Your task to perform on an android device: toggle improve location accuracy Image 0: 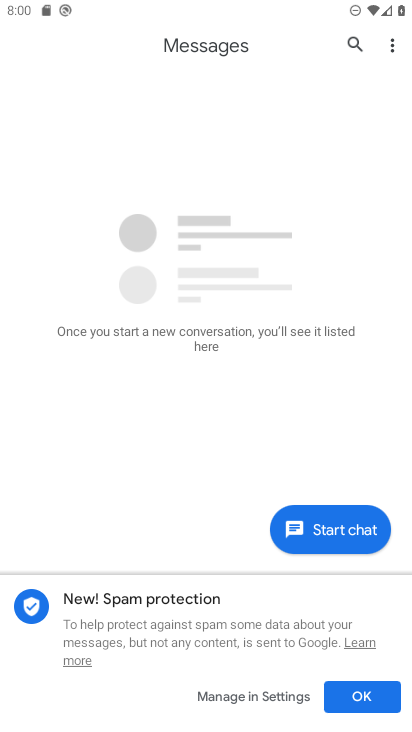
Step 0: press home button
Your task to perform on an android device: toggle improve location accuracy Image 1: 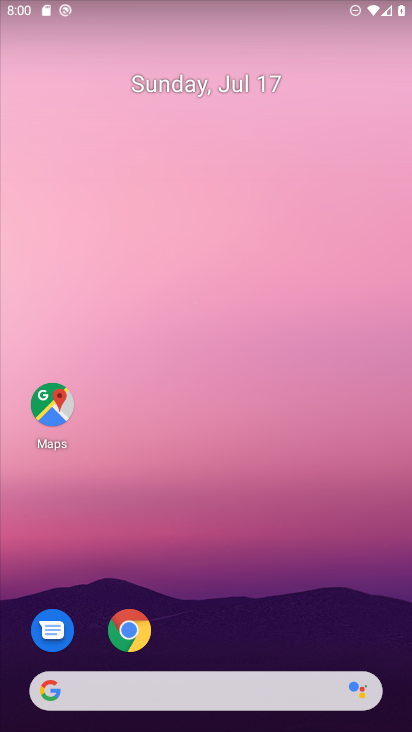
Step 1: drag from (266, 647) to (266, 252)
Your task to perform on an android device: toggle improve location accuracy Image 2: 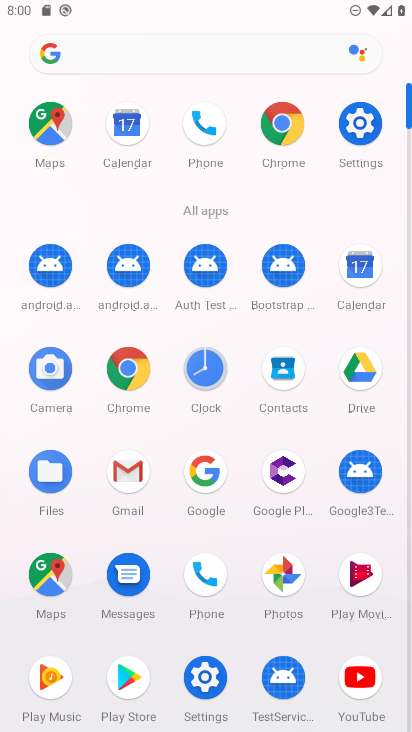
Step 2: click (350, 119)
Your task to perform on an android device: toggle improve location accuracy Image 3: 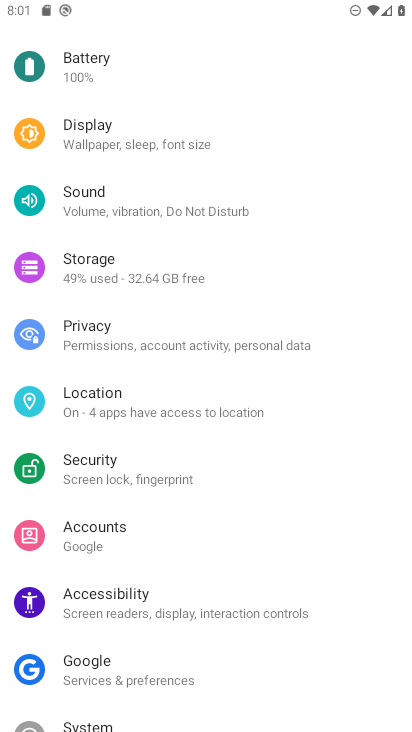
Step 3: drag from (126, 558) to (204, 53)
Your task to perform on an android device: toggle improve location accuracy Image 4: 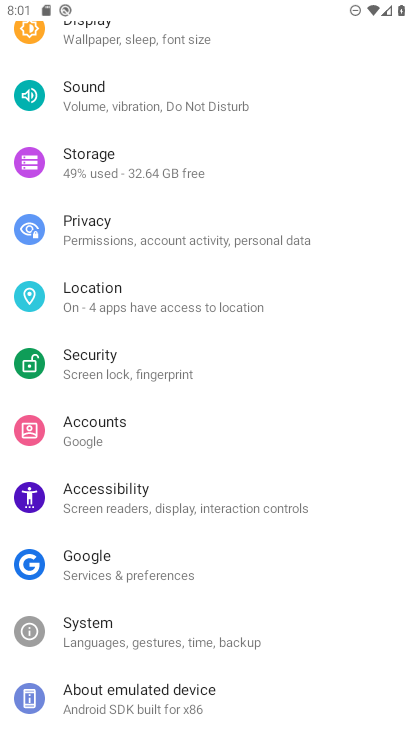
Step 4: click (117, 311)
Your task to perform on an android device: toggle improve location accuracy Image 5: 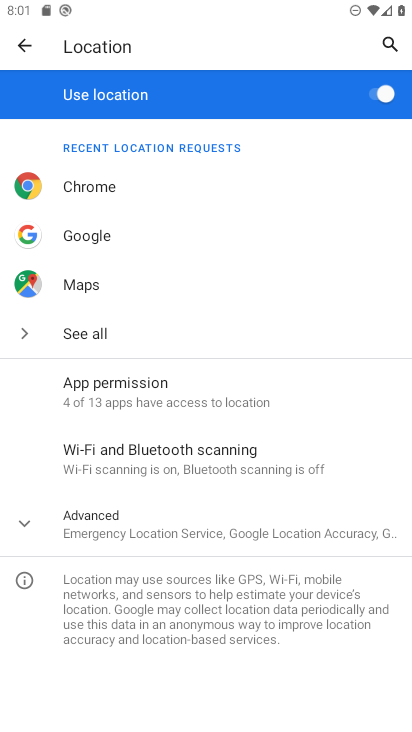
Step 5: click (178, 527)
Your task to perform on an android device: toggle improve location accuracy Image 6: 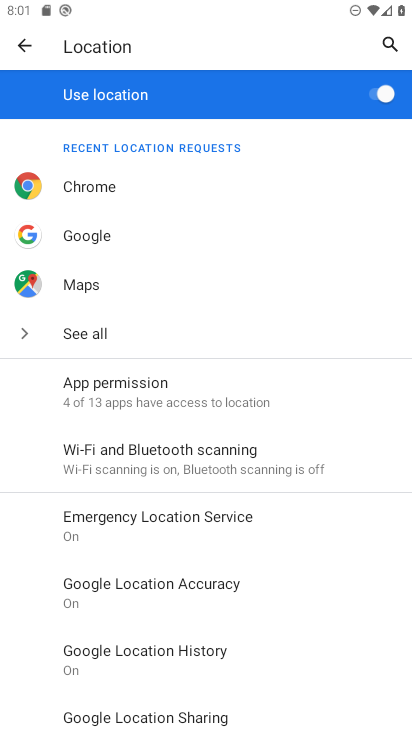
Step 6: click (227, 582)
Your task to perform on an android device: toggle improve location accuracy Image 7: 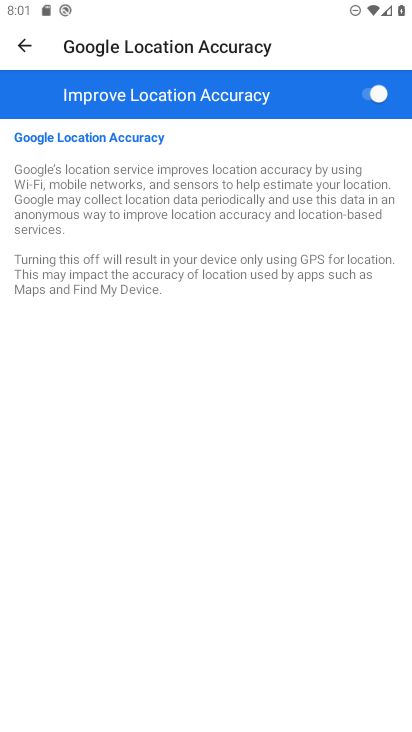
Step 7: click (376, 89)
Your task to perform on an android device: toggle improve location accuracy Image 8: 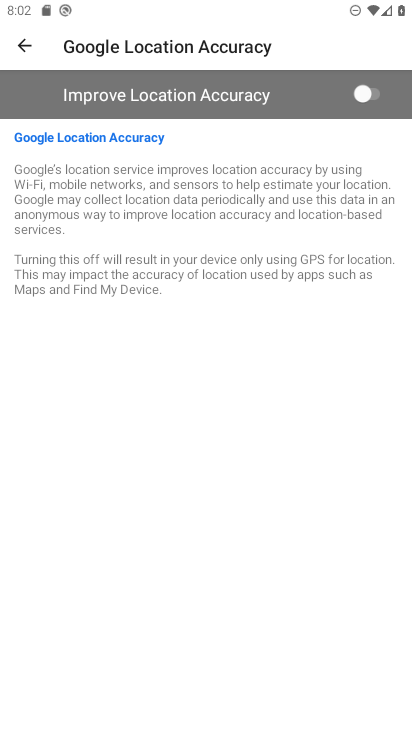
Step 8: task complete